Your task to perform on an android device: set default search engine in the chrome app Image 0: 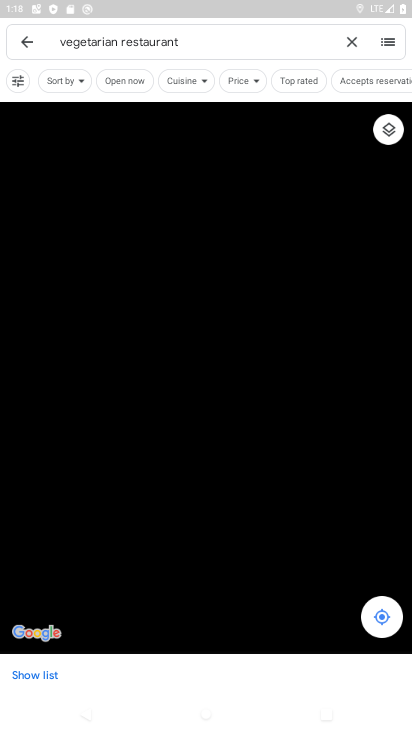
Step 0: press home button
Your task to perform on an android device: set default search engine in the chrome app Image 1: 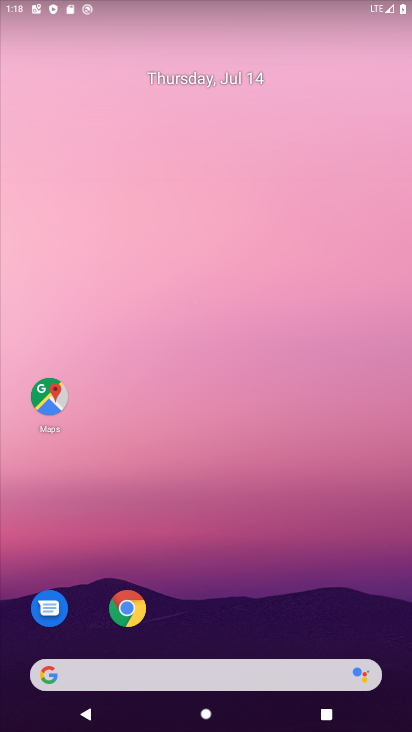
Step 1: click (129, 609)
Your task to perform on an android device: set default search engine in the chrome app Image 2: 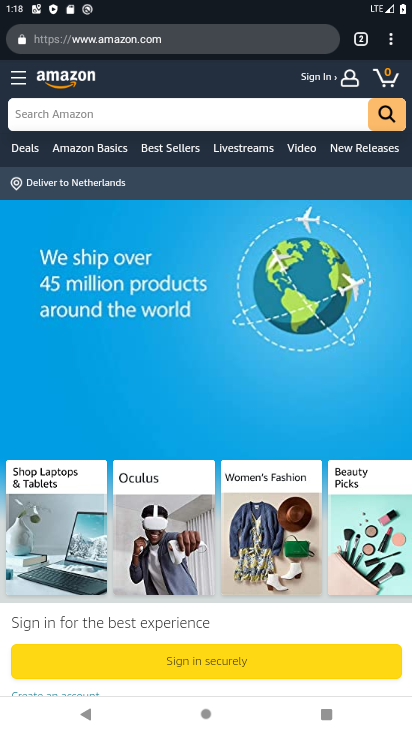
Step 2: click (392, 42)
Your task to perform on an android device: set default search engine in the chrome app Image 3: 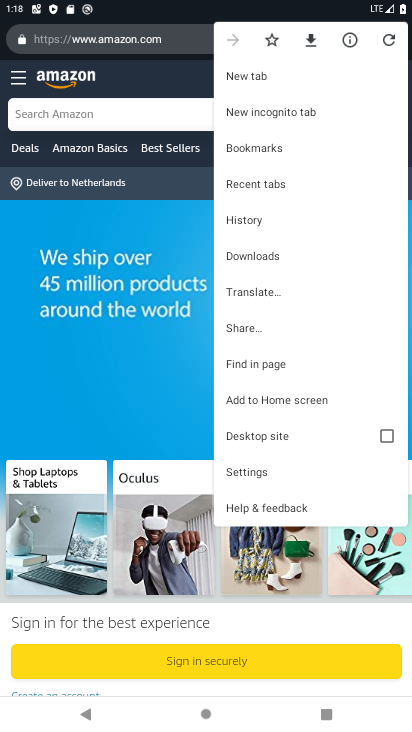
Step 3: click (258, 468)
Your task to perform on an android device: set default search engine in the chrome app Image 4: 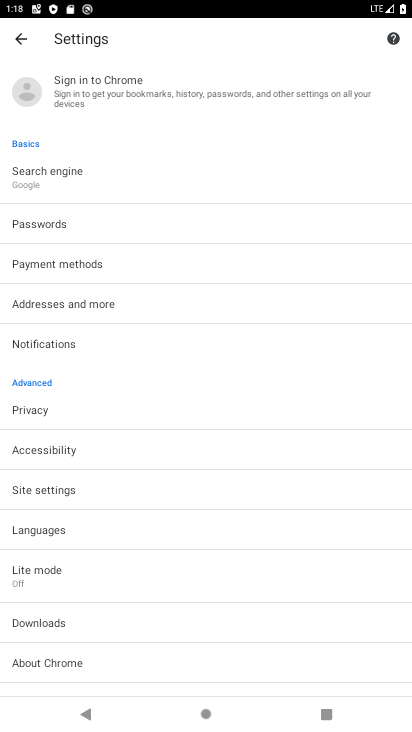
Step 4: click (112, 175)
Your task to perform on an android device: set default search engine in the chrome app Image 5: 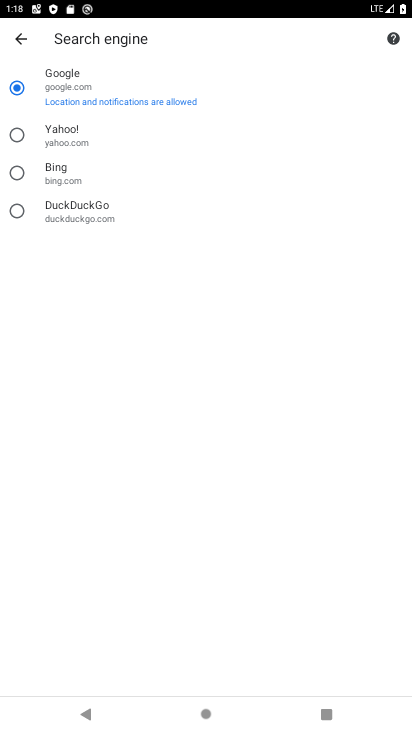
Step 5: task complete